Your task to perform on an android device: change notifications settings Image 0: 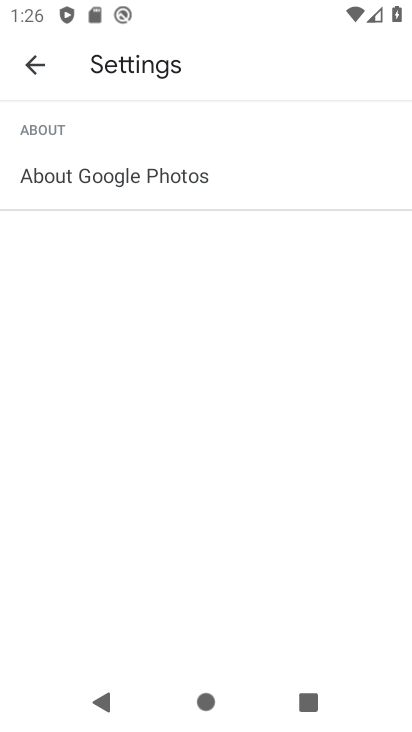
Step 0: press home button
Your task to perform on an android device: change notifications settings Image 1: 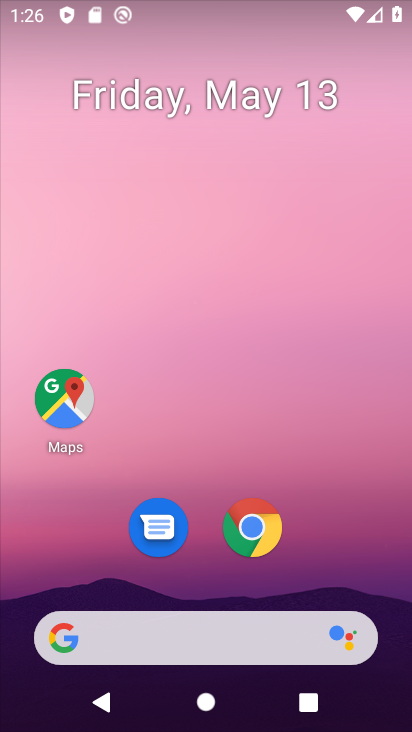
Step 1: drag from (217, 562) to (334, 53)
Your task to perform on an android device: change notifications settings Image 2: 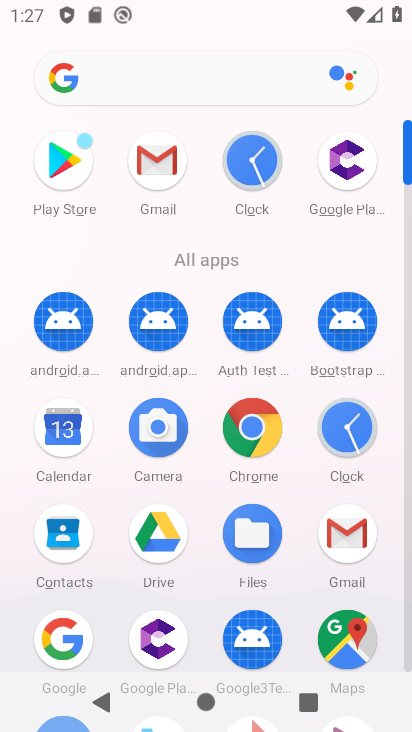
Step 2: drag from (207, 638) to (407, 165)
Your task to perform on an android device: change notifications settings Image 3: 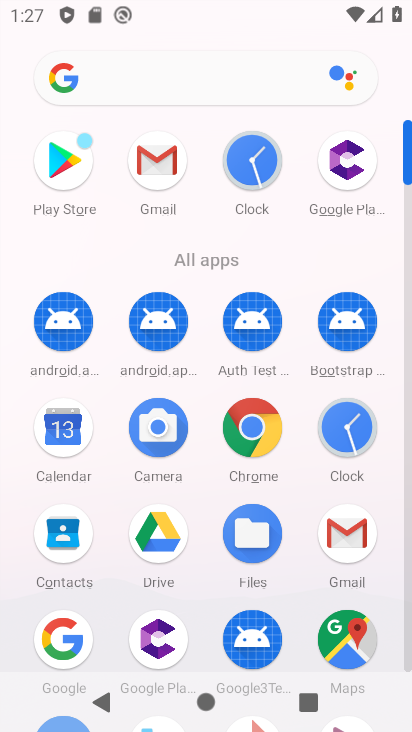
Step 3: drag from (190, 628) to (216, 275)
Your task to perform on an android device: change notifications settings Image 4: 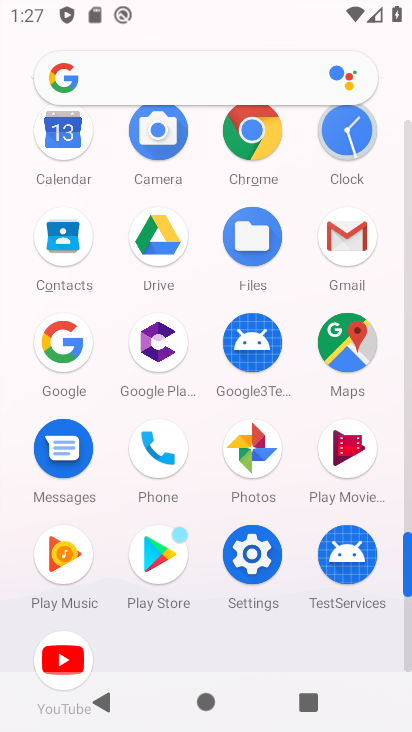
Step 4: click (269, 559)
Your task to perform on an android device: change notifications settings Image 5: 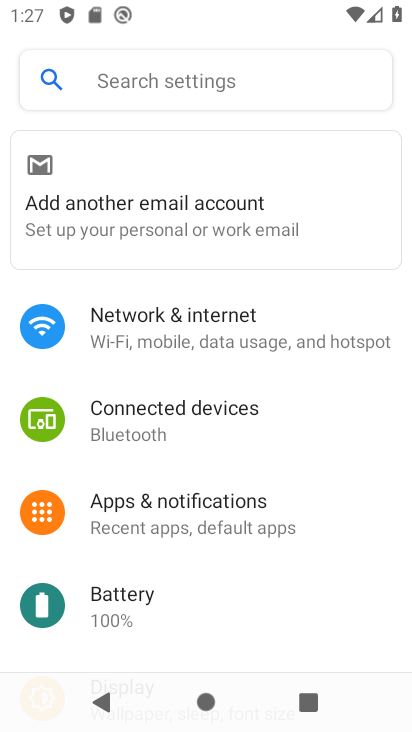
Step 5: click (199, 488)
Your task to perform on an android device: change notifications settings Image 6: 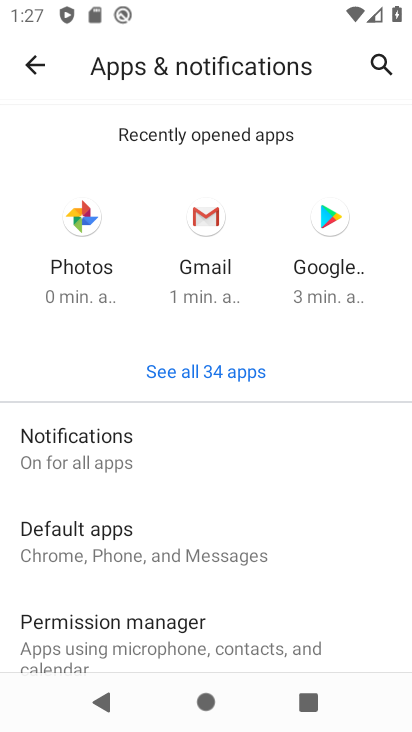
Step 6: click (126, 451)
Your task to perform on an android device: change notifications settings Image 7: 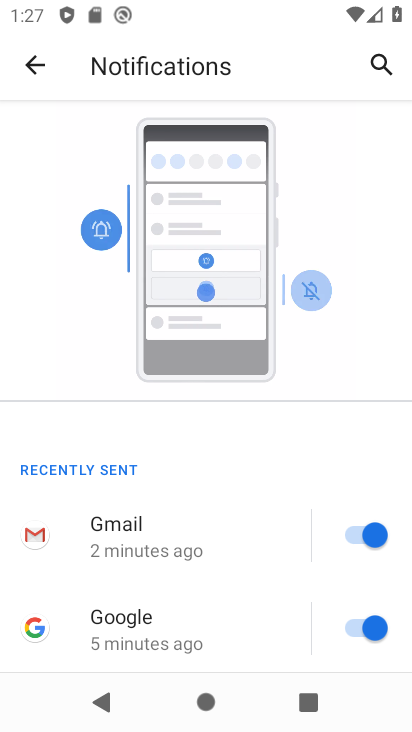
Step 7: drag from (208, 561) to (213, 193)
Your task to perform on an android device: change notifications settings Image 8: 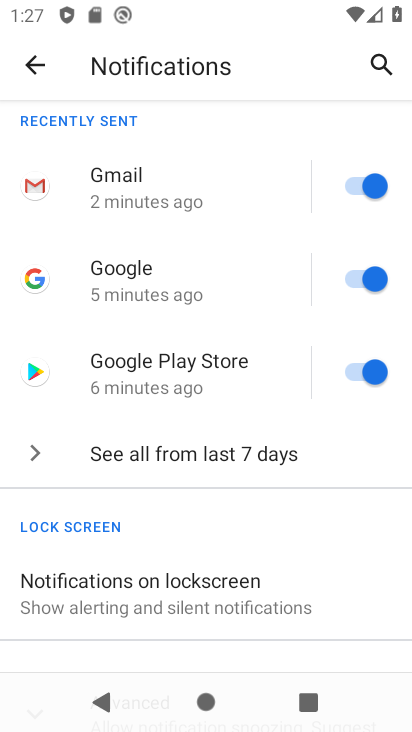
Step 8: drag from (179, 565) to (205, 325)
Your task to perform on an android device: change notifications settings Image 9: 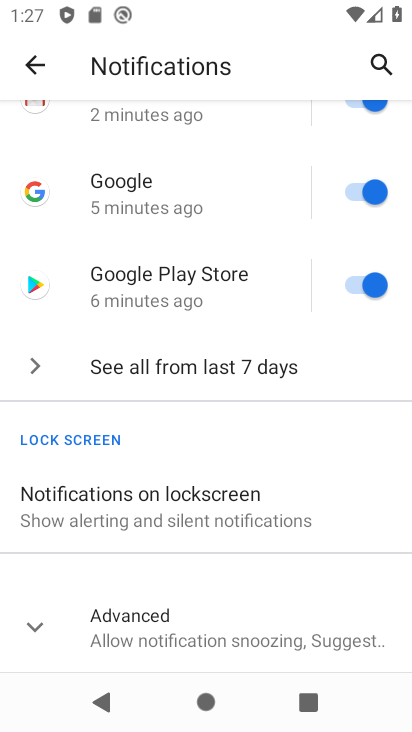
Step 9: click (166, 503)
Your task to perform on an android device: change notifications settings Image 10: 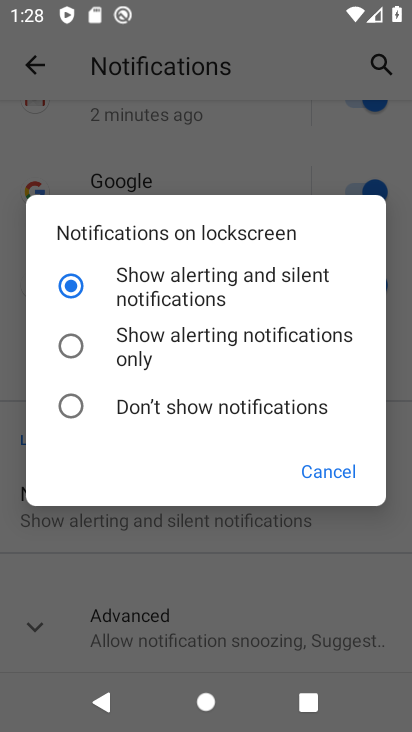
Step 10: click (167, 362)
Your task to perform on an android device: change notifications settings Image 11: 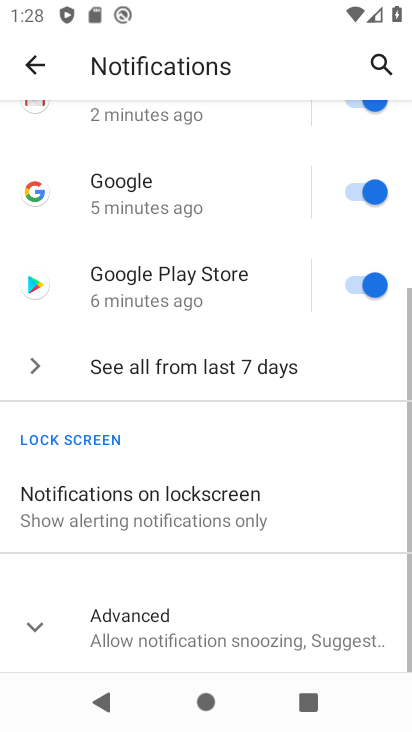
Step 11: task complete